Your task to perform on an android device: all mails in gmail Image 0: 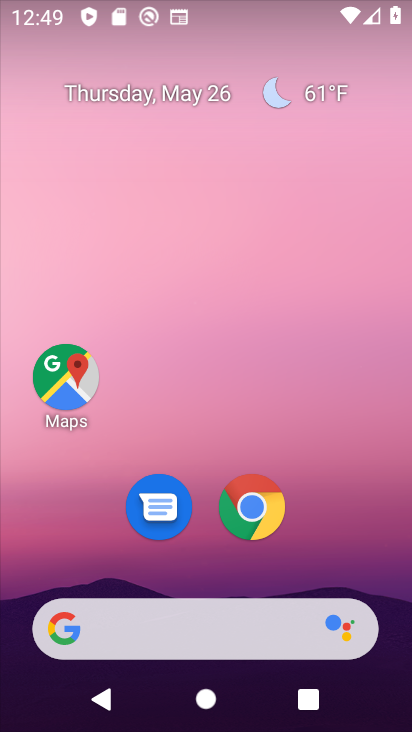
Step 0: drag from (375, 515) to (219, 103)
Your task to perform on an android device: all mails in gmail Image 1: 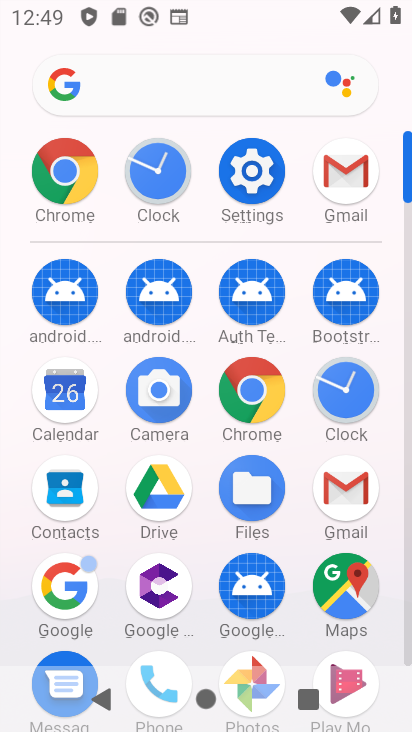
Step 1: click (348, 192)
Your task to perform on an android device: all mails in gmail Image 2: 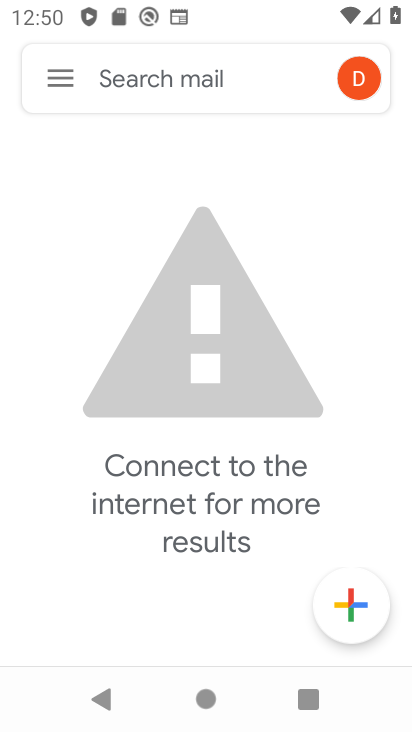
Step 2: task complete